Your task to perform on an android device: toggle sleep mode Image 0: 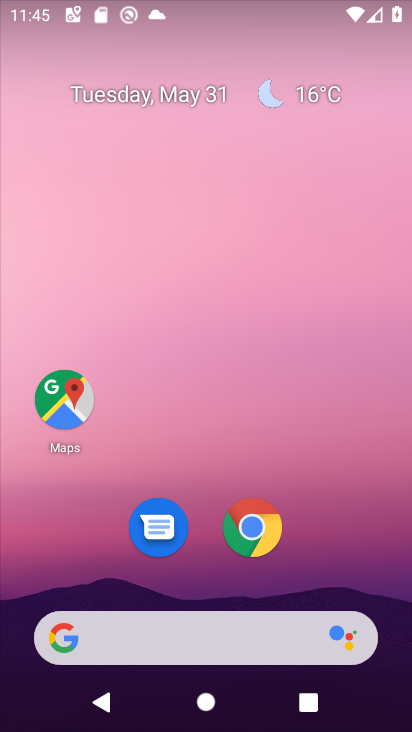
Step 0: drag from (368, 552) to (354, 0)
Your task to perform on an android device: toggle sleep mode Image 1: 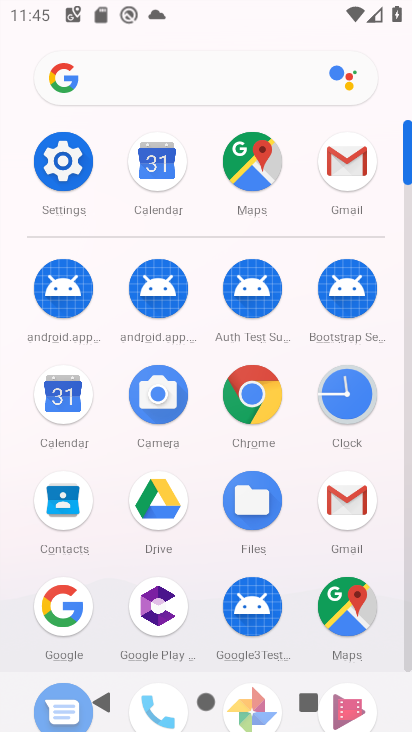
Step 1: click (54, 171)
Your task to perform on an android device: toggle sleep mode Image 2: 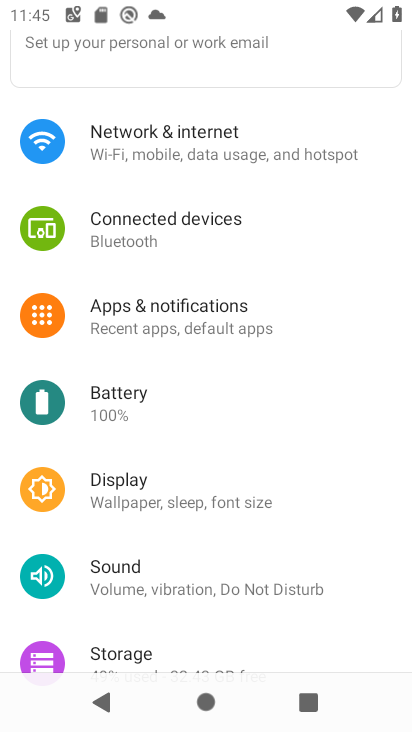
Step 2: click (122, 500)
Your task to perform on an android device: toggle sleep mode Image 3: 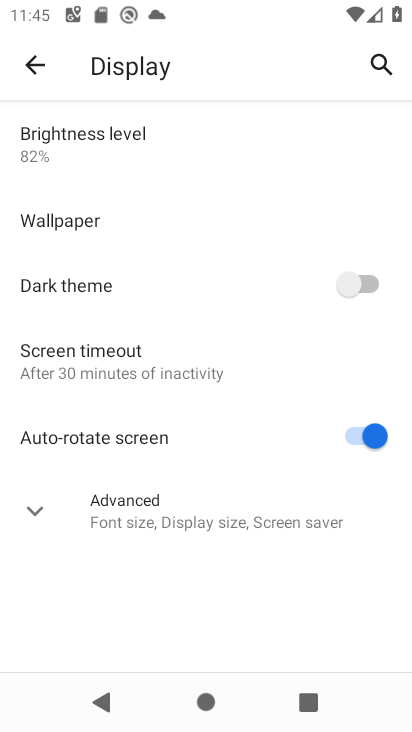
Step 3: click (37, 520)
Your task to perform on an android device: toggle sleep mode Image 4: 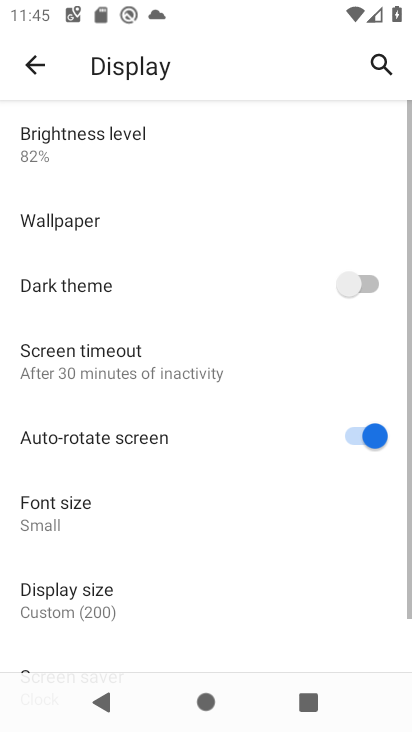
Step 4: task complete